Your task to perform on an android device: set the timer Image 0: 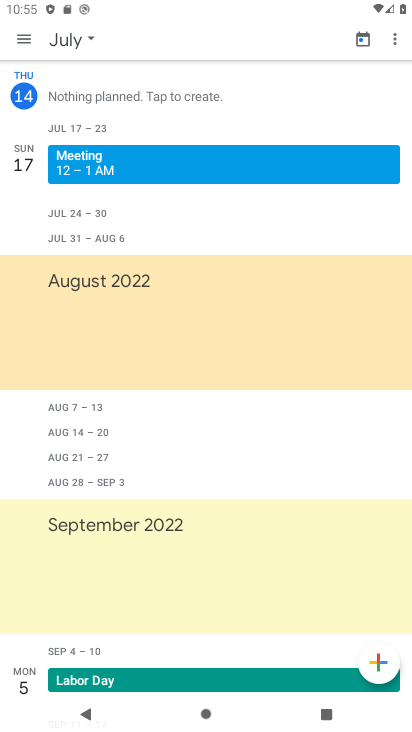
Step 0: press home button
Your task to perform on an android device: set the timer Image 1: 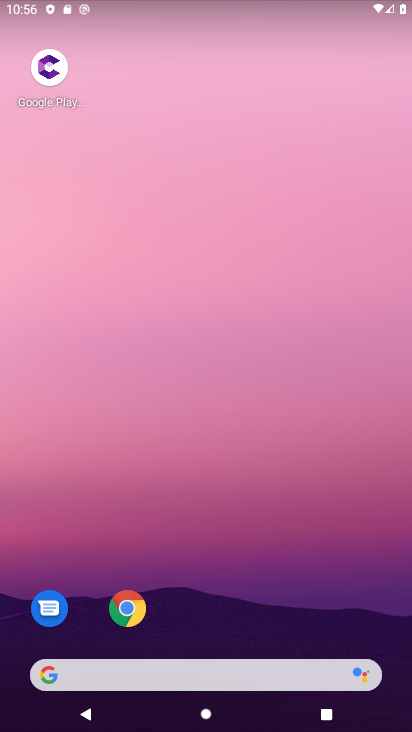
Step 1: drag from (255, 605) to (176, 65)
Your task to perform on an android device: set the timer Image 2: 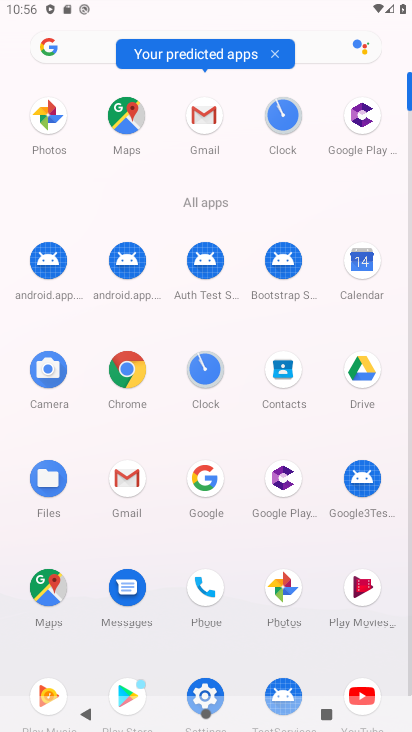
Step 2: click (220, 376)
Your task to perform on an android device: set the timer Image 3: 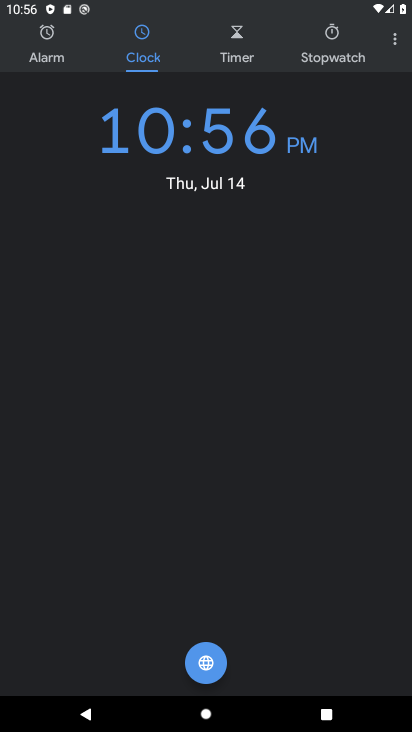
Step 3: click (231, 48)
Your task to perform on an android device: set the timer Image 4: 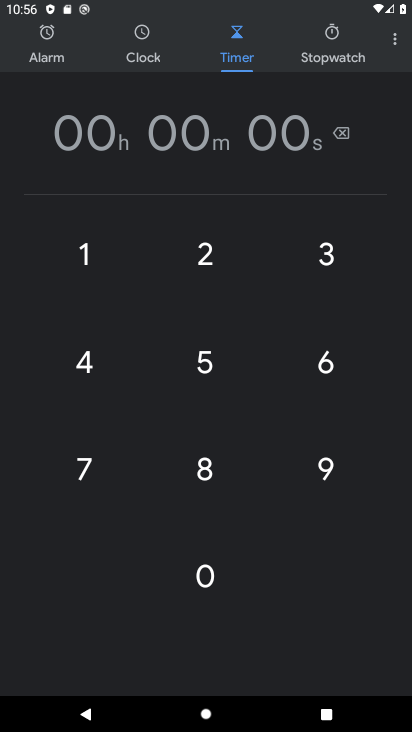
Step 4: task complete